Your task to perform on an android device: Is it going to rain this weekend? Image 0: 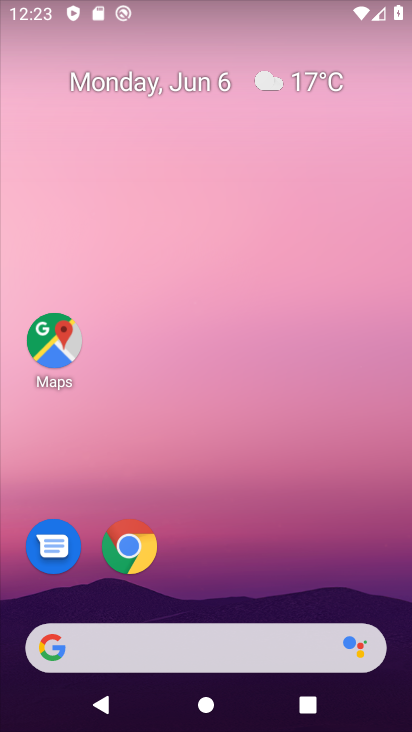
Step 0: drag from (209, 622) to (167, 10)
Your task to perform on an android device: Is it going to rain this weekend? Image 1: 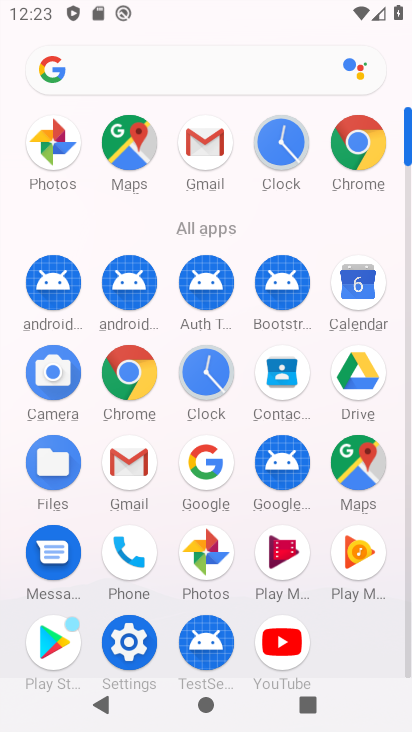
Step 1: click (195, 455)
Your task to perform on an android device: Is it going to rain this weekend? Image 2: 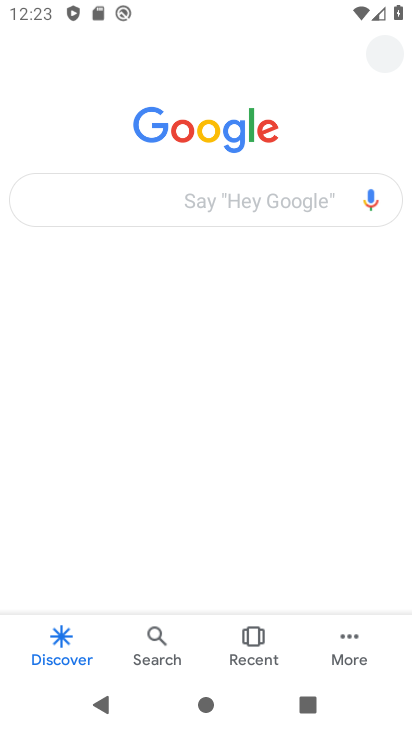
Step 2: click (150, 200)
Your task to perform on an android device: Is it going to rain this weekend? Image 3: 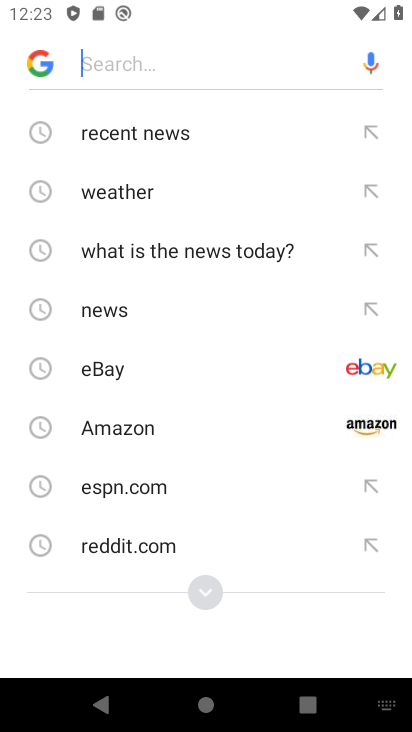
Step 3: click (129, 196)
Your task to perform on an android device: Is it going to rain this weekend? Image 4: 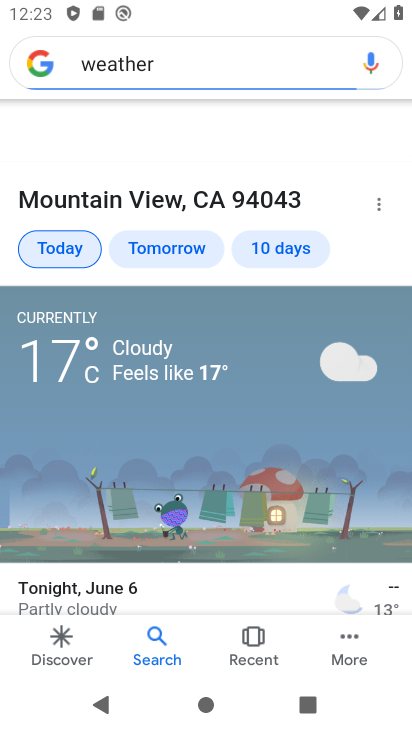
Step 4: task complete